Your task to perform on an android device: Open calendar and show me the third week of next month Image 0: 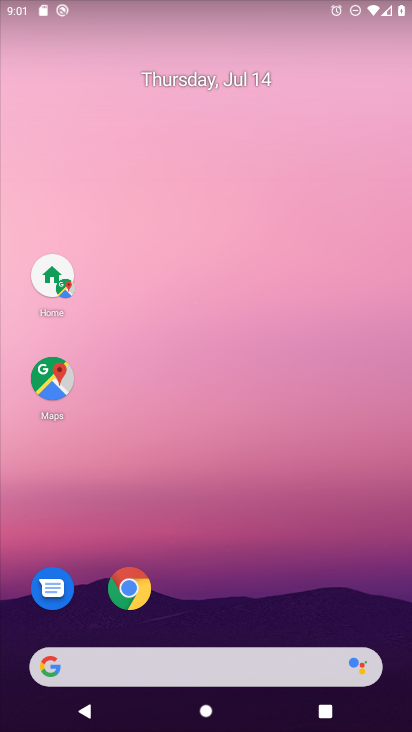
Step 0: drag from (10, 699) to (283, 176)
Your task to perform on an android device: Open calendar and show me the third week of next month Image 1: 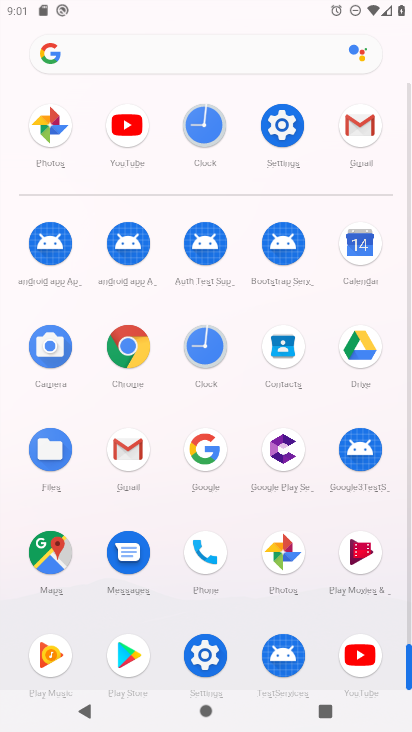
Step 1: click (357, 252)
Your task to perform on an android device: Open calendar and show me the third week of next month Image 2: 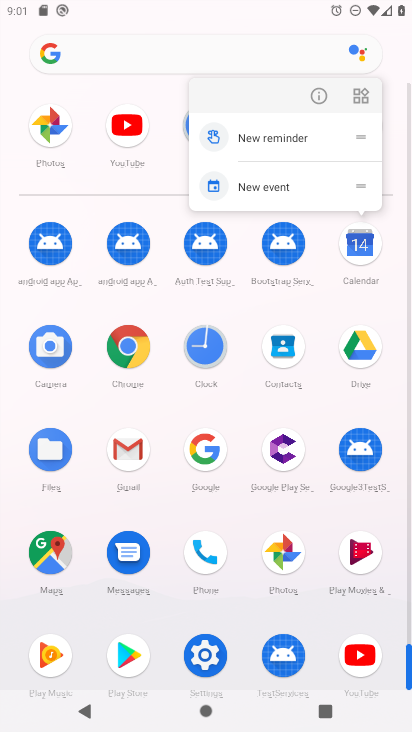
Step 2: click (358, 246)
Your task to perform on an android device: Open calendar and show me the third week of next month Image 3: 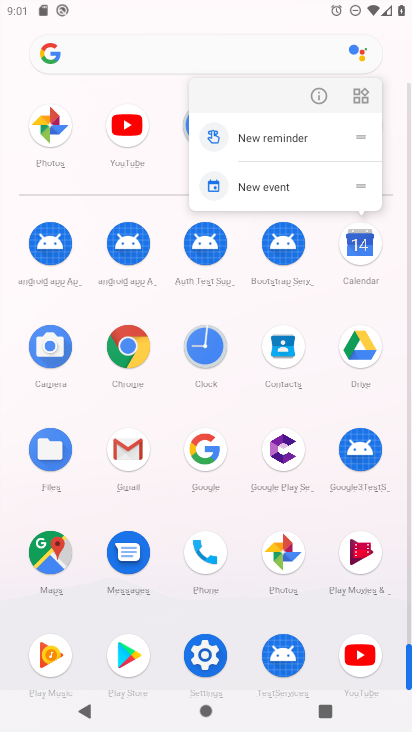
Step 3: click (344, 240)
Your task to perform on an android device: Open calendar and show me the third week of next month Image 4: 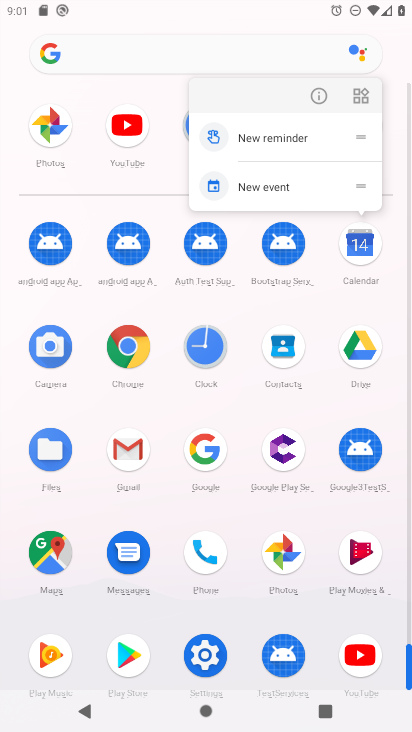
Step 4: click (362, 246)
Your task to perform on an android device: Open calendar and show me the third week of next month Image 5: 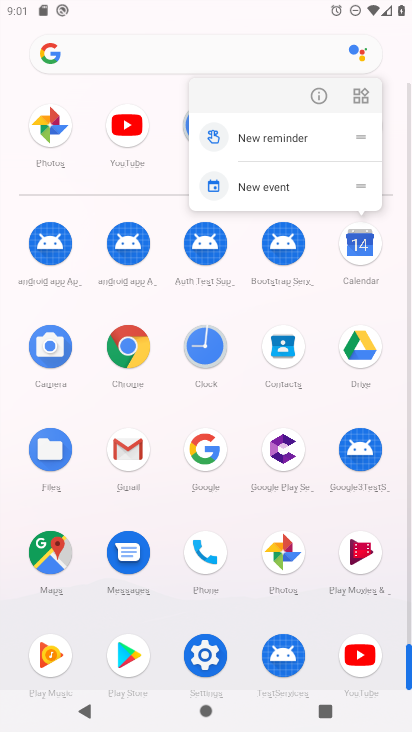
Step 5: task complete